Your task to perform on an android device: toggle wifi Image 0: 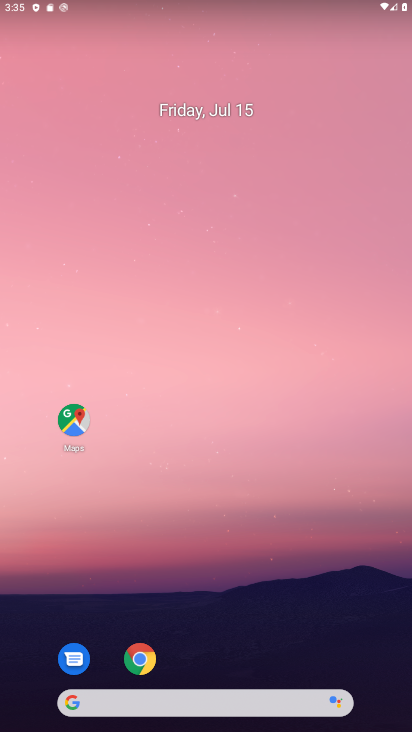
Step 0: drag from (187, 427) to (215, 199)
Your task to perform on an android device: toggle wifi Image 1: 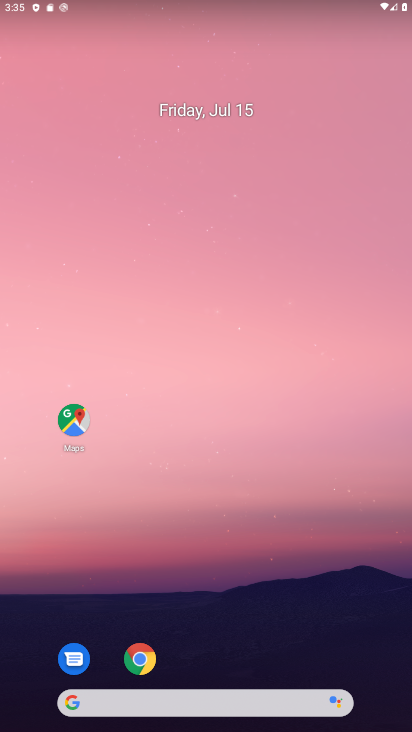
Step 1: drag from (190, 401) to (173, 166)
Your task to perform on an android device: toggle wifi Image 2: 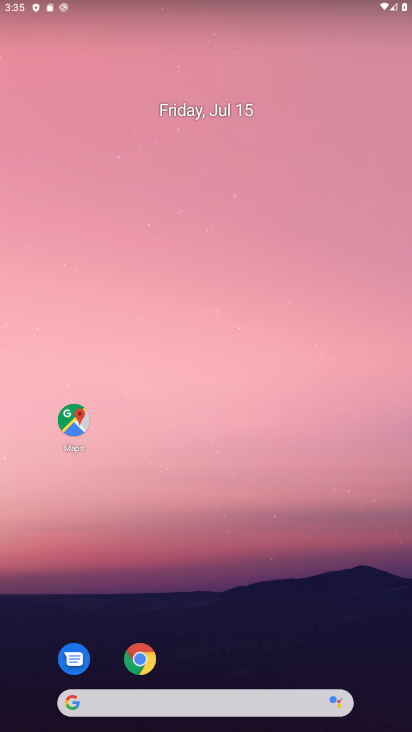
Step 2: drag from (183, 667) to (119, 201)
Your task to perform on an android device: toggle wifi Image 3: 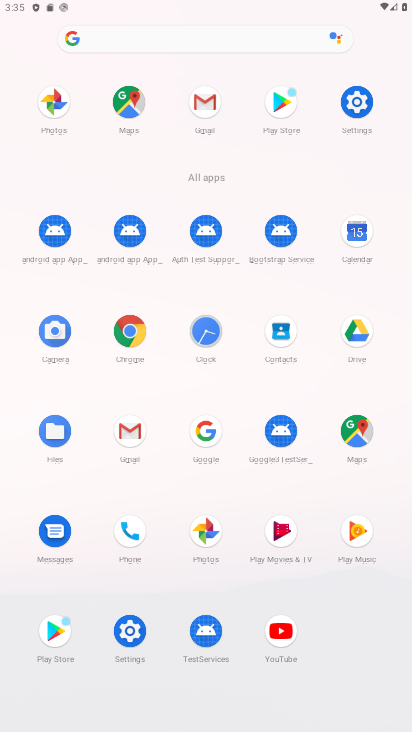
Step 3: click (357, 104)
Your task to perform on an android device: toggle wifi Image 4: 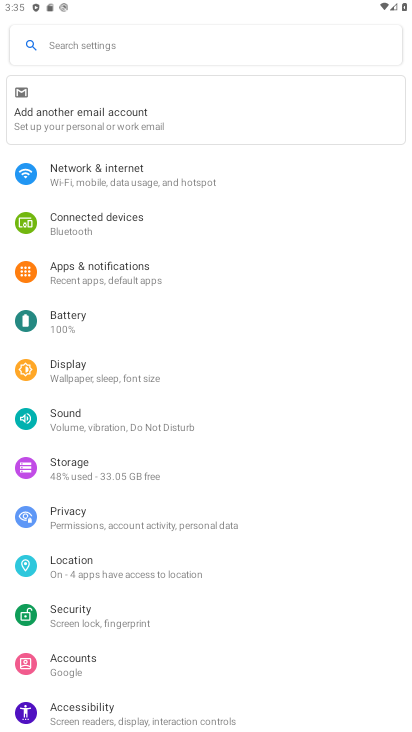
Step 4: click (112, 175)
Your task to perform on an android device: toggle wifi Image 5: 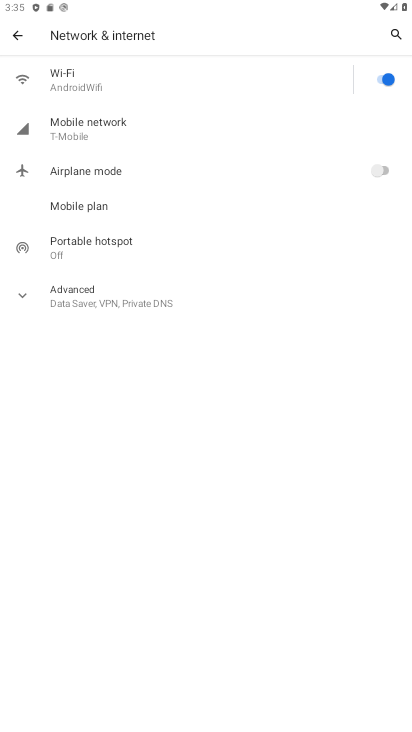
Step 5: click (383, 80)
Your task to perform on an android device: toggle wifi Image 6: 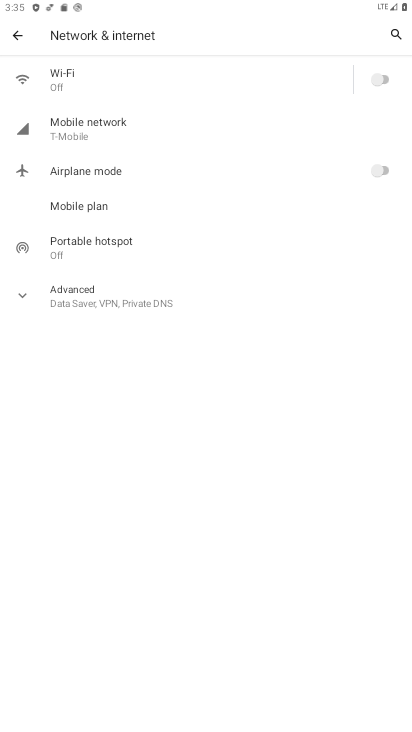
Step 6: task complete